Your task to perform on an android device: Turn off notifications for the Google Maps app Image 0: 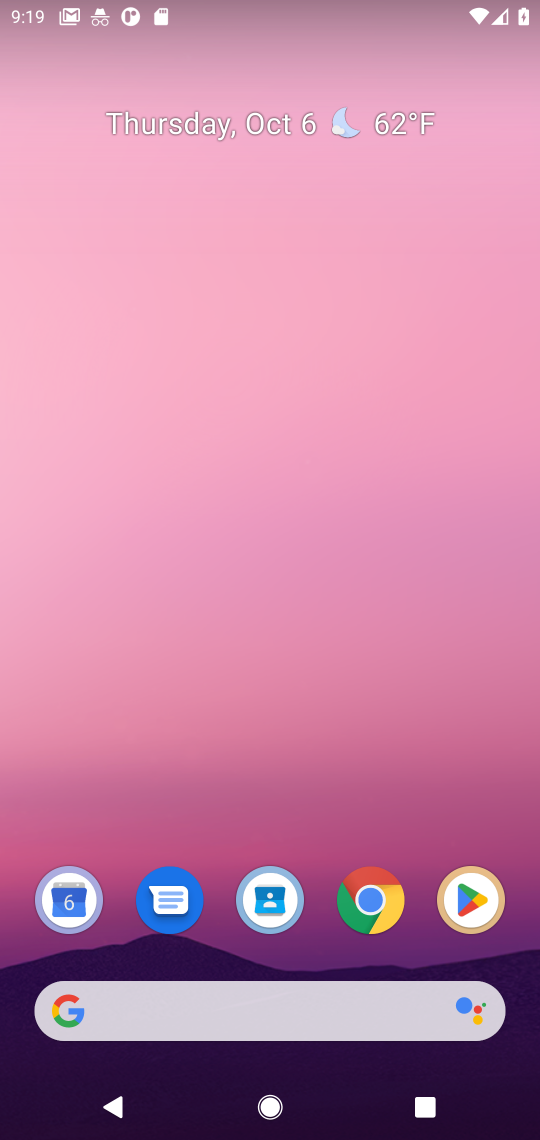
Step 0: press home button
Your task to perform on an android device: Turn off notifications for the Google Maps app Image 1: 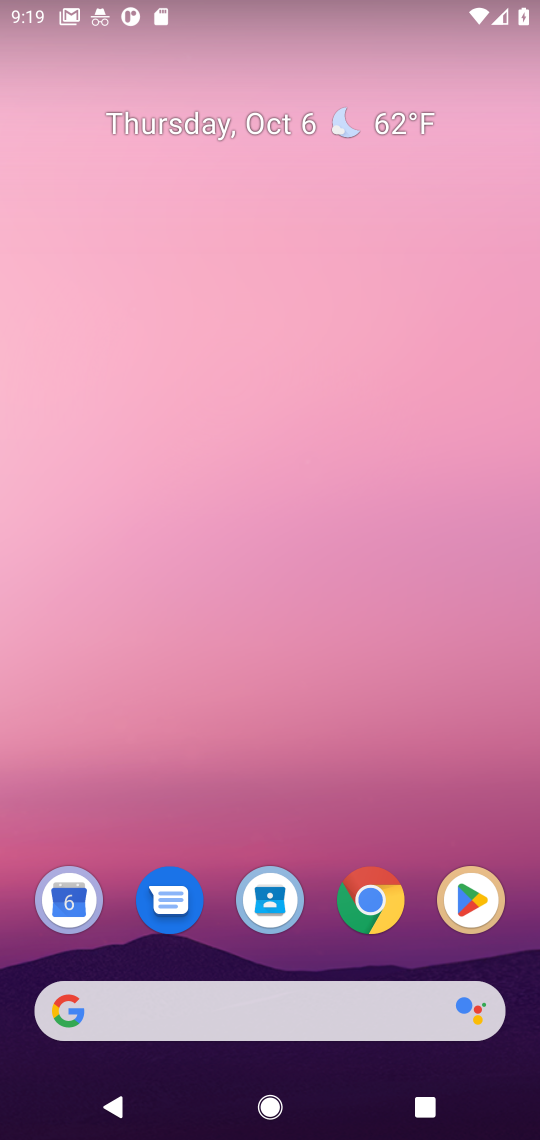
Step 1: drag from (480, 758) to (481, 40)
Your task to perform on an android device: Turn off notifications for the Google Maps app Image 2: 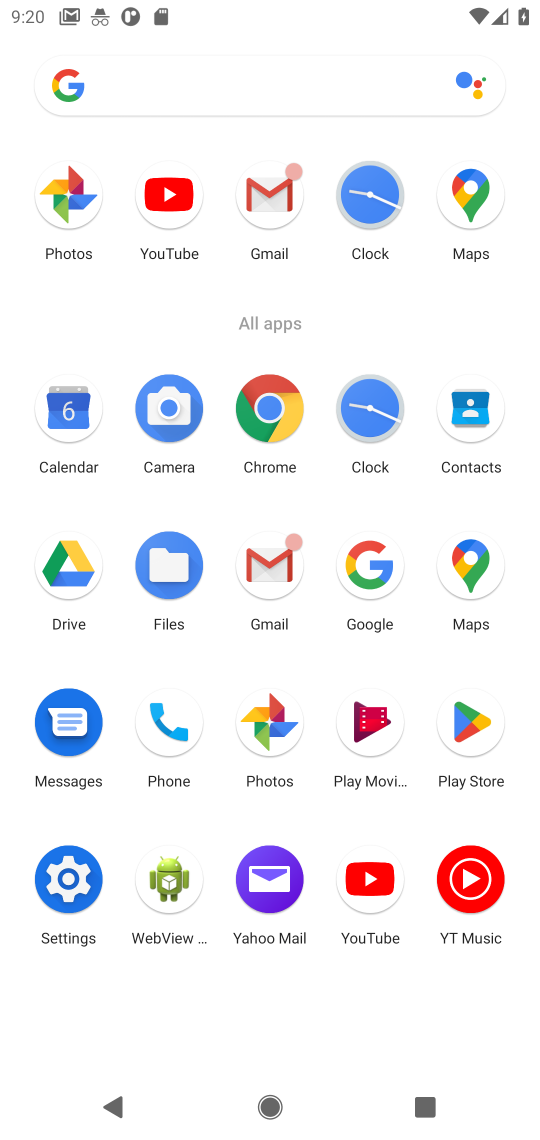
Step 2: click (483, 553)
Your task to perform on an android device: Turn off notifications for the Google Maps app Image 3: 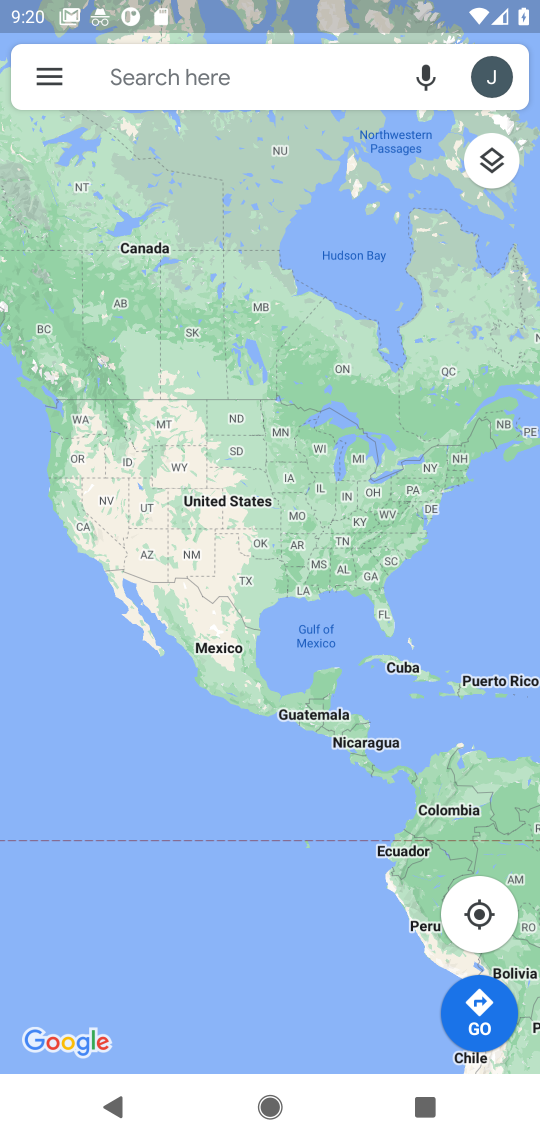
Step 3: click (46, 83)
Your task to perform on an android device: Turn off notifications for the Google Maps app Image 4: 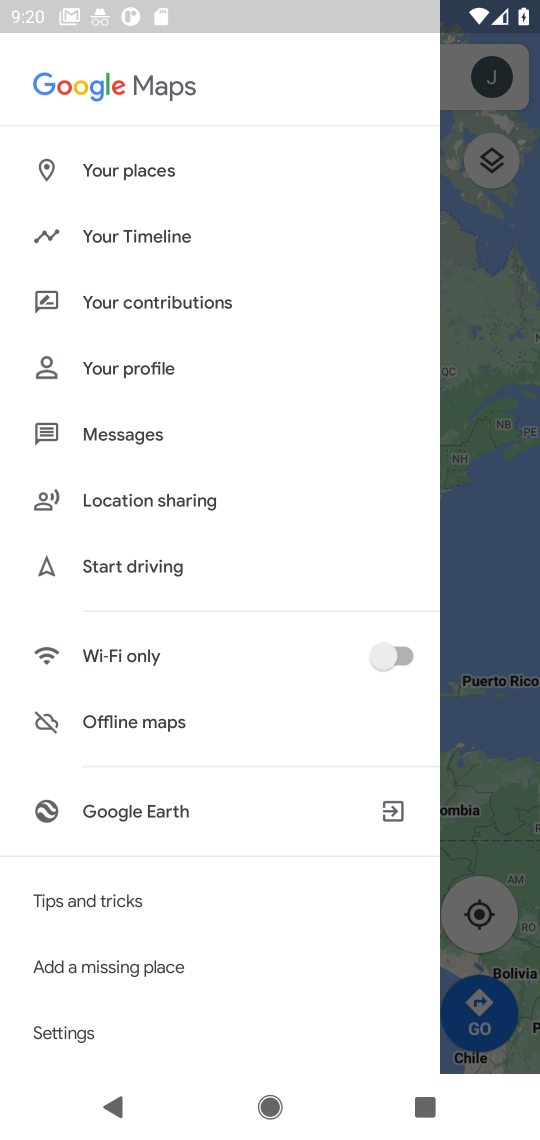
Step 4: drag from (301, 773) to (296, 441)
Your task to perform on an android device: Turn off notifications for the Google Maps app Image 5: 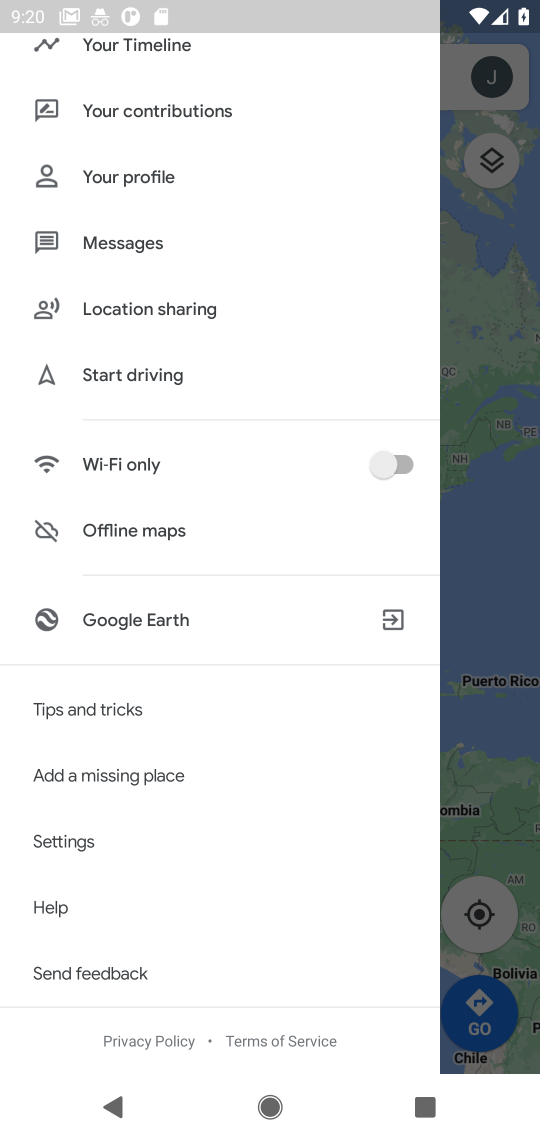
Step 5: click (83, 847)
Your task to perform on an android device: Turn off notifications for the Google Maps app Image 6: 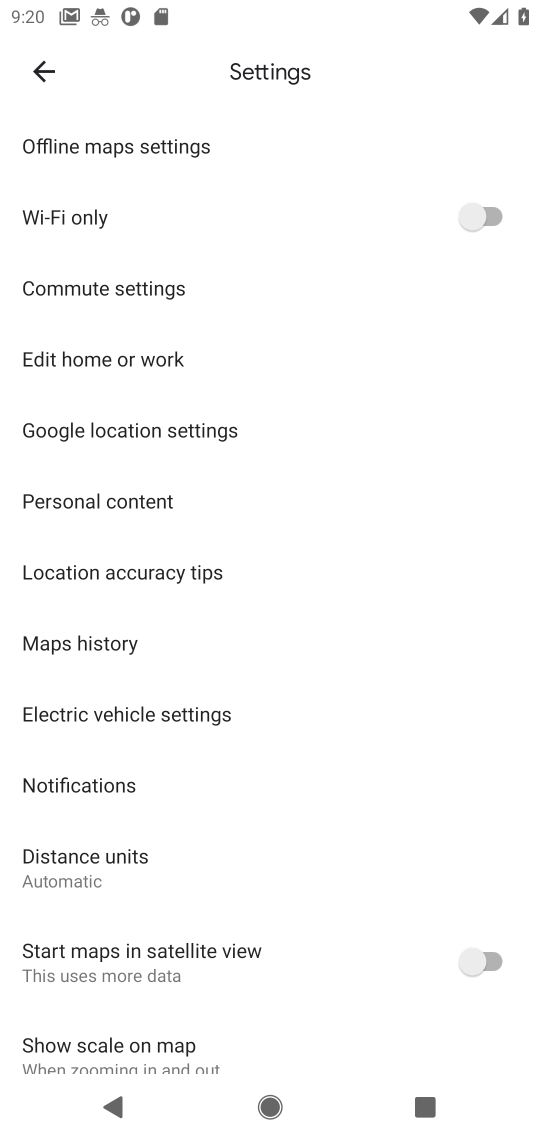
Step 6: click (59, 780)
Your task to perform on an android device: Turn off notifications for the Google Maps app Image 7: 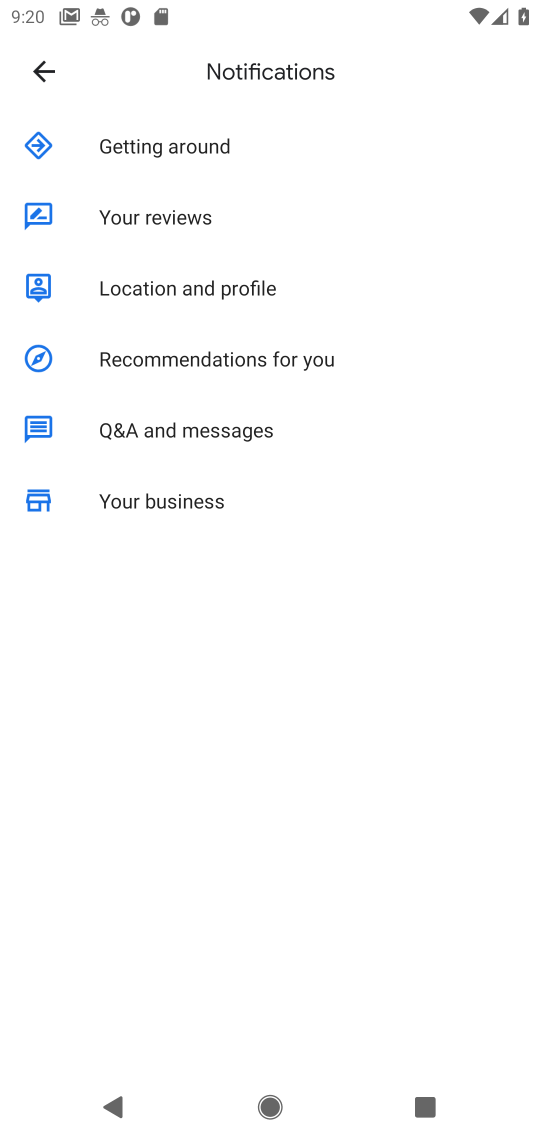
Step 7: click (200, 144)
Your task to perform on an android device: Turn off notifications for the Google Maps app Image 8: 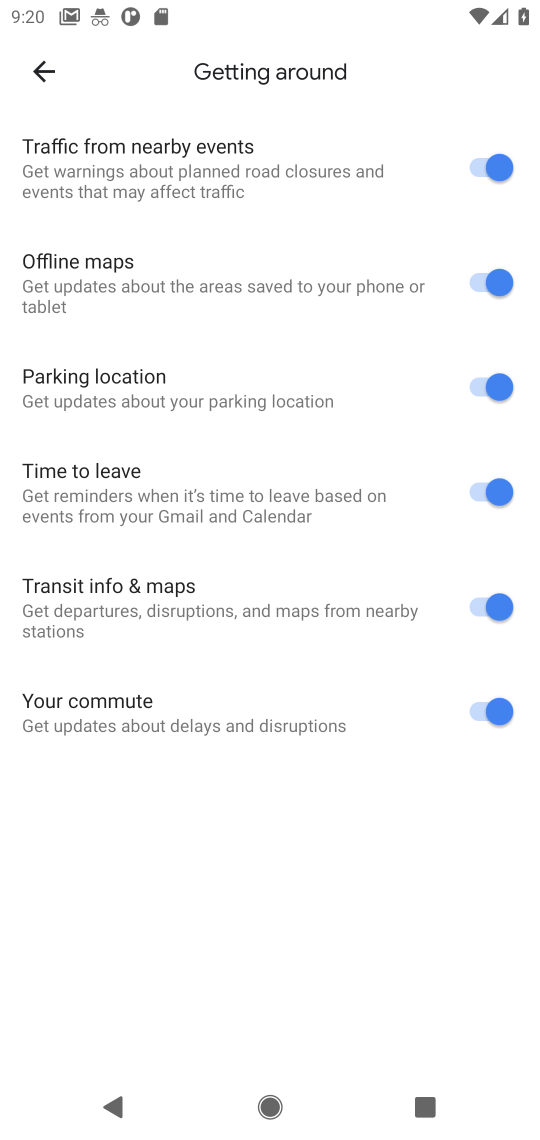
Step 8: click (501, 170)
Your task to perform on an android device: Turn off notifications for the Google Maps app Image 9: 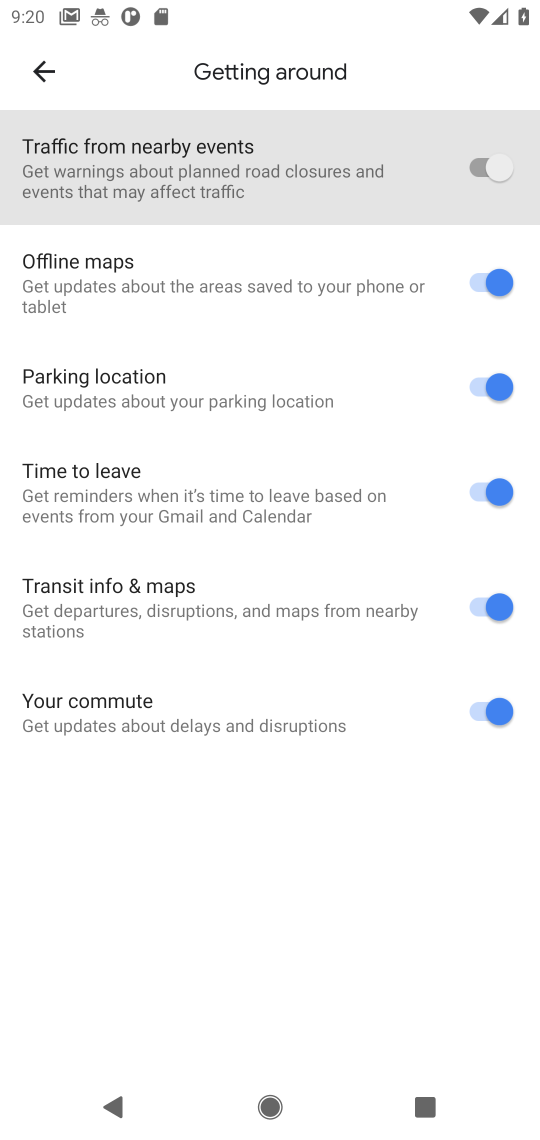
Step 9: click (496, 290)
Your task to perform on an android device: Turn off notifications for the Google Maps app Image 10: 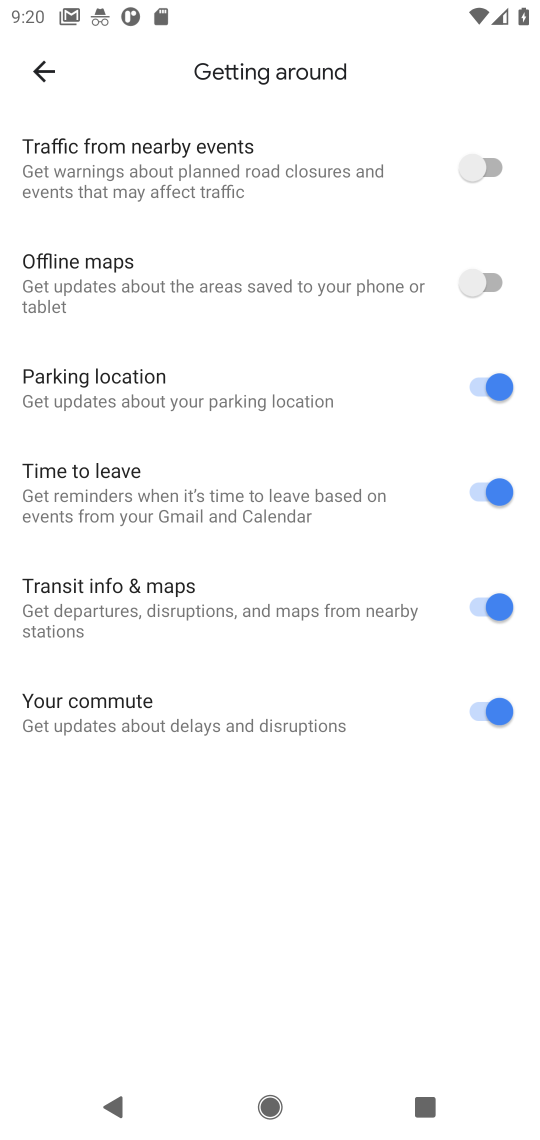
Step 10: click (501, 382)
Your task to perform on an android device: Turn off notifications for the Google Maps app Image 11: 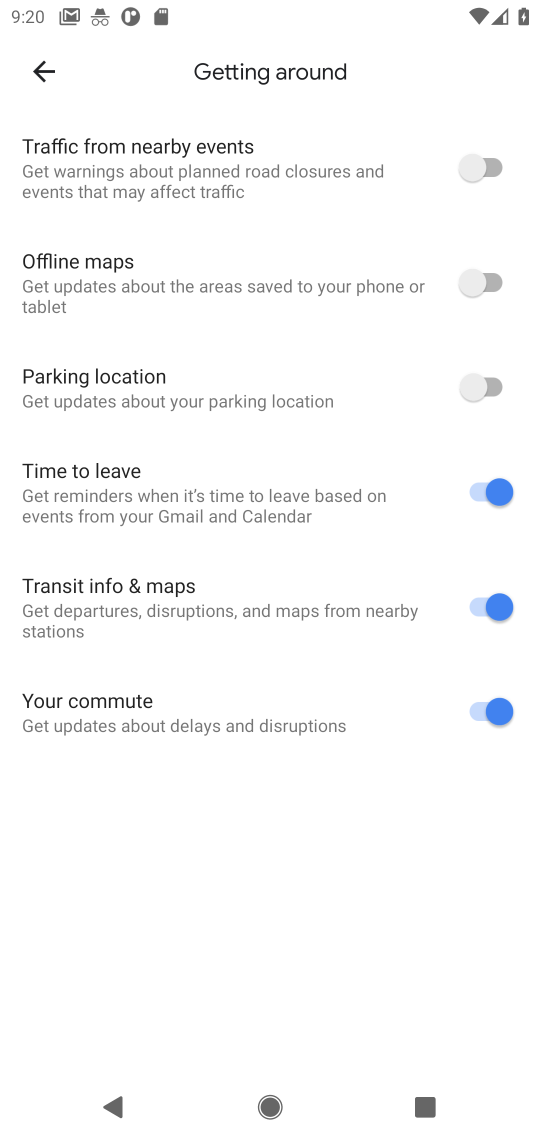
Step 11: click (495, 496)
Your task to perform on an android device: Turn off notifications for the Google Maps app Image 12: 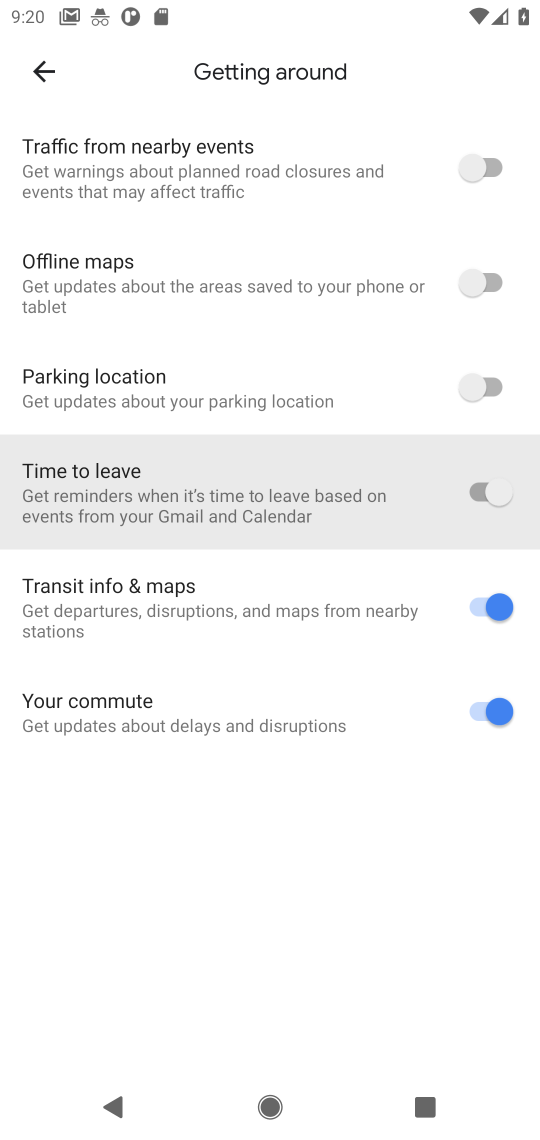
Step 12: click (495, 605)
Your task to perform on an android device: Turn off notifications for the Google Maps app Image 13: 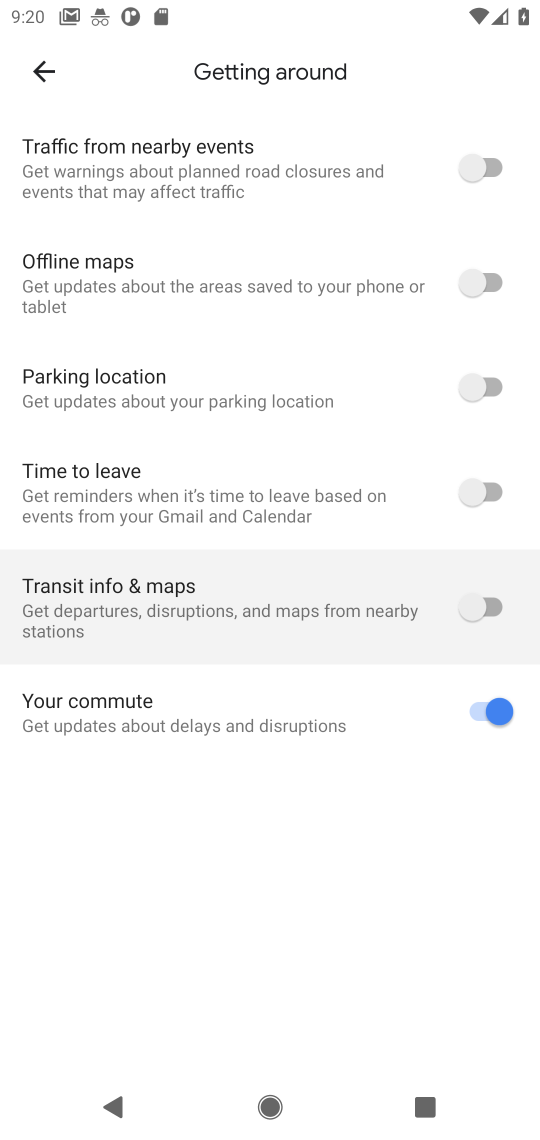
Step 13: click (488, 712)
Your task to perform on an android device: Turn off notifications for the Google Maps app Image 14: 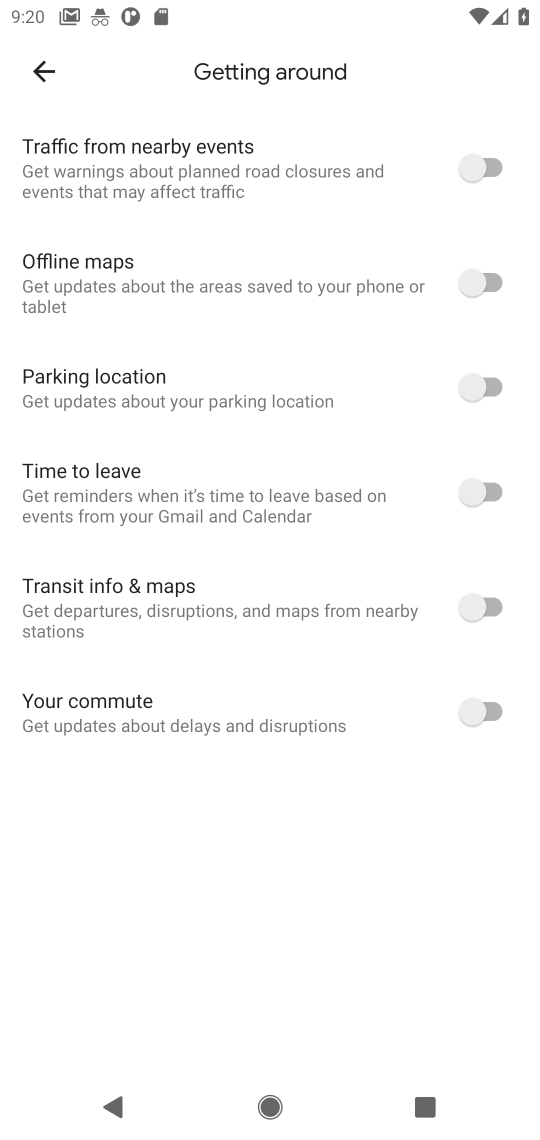
Step 14: click (492, 703)
Your task to perform on an android device: Turn off notifications for the Google Maps app Image 15: 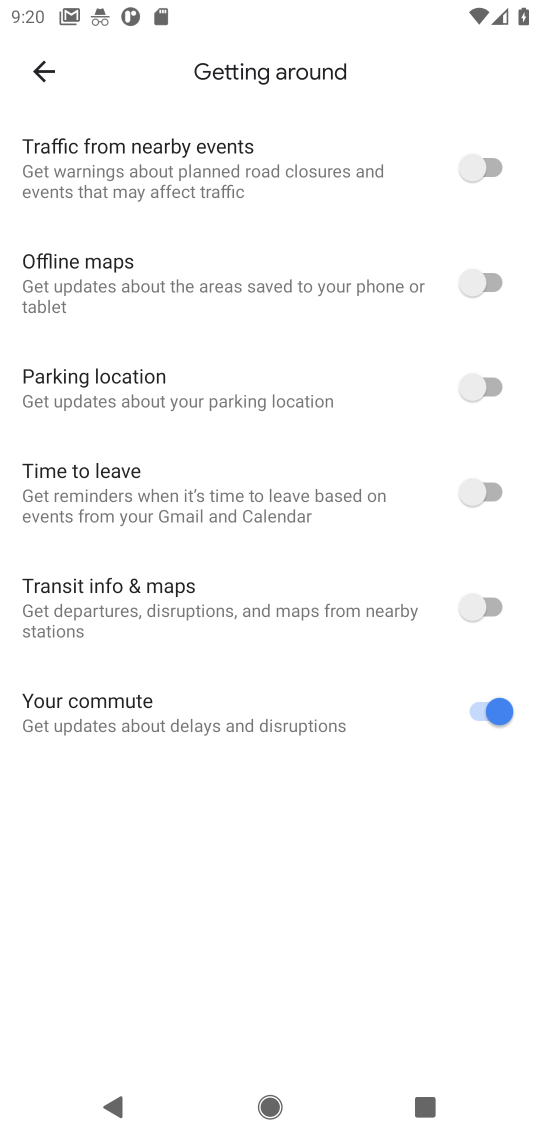
Step 15: click (42, 61)
Your task to perform on an android device: Turn off notifications for the Google Maps app Image 16: 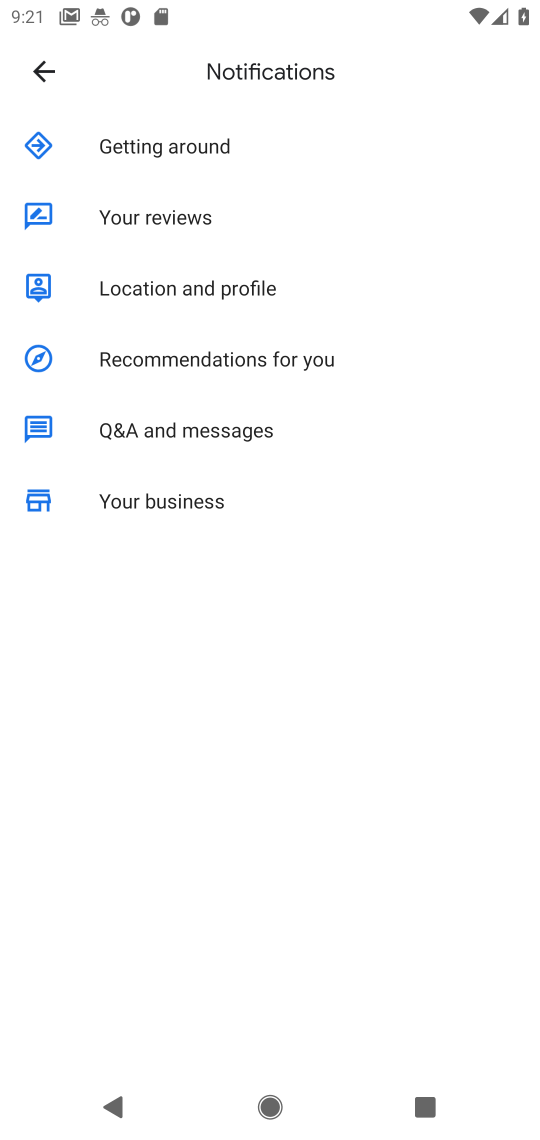
Step 16: click (46, 63)
Your task to perform on an android device: Turn off notifications for the Google Maps app Image 17: 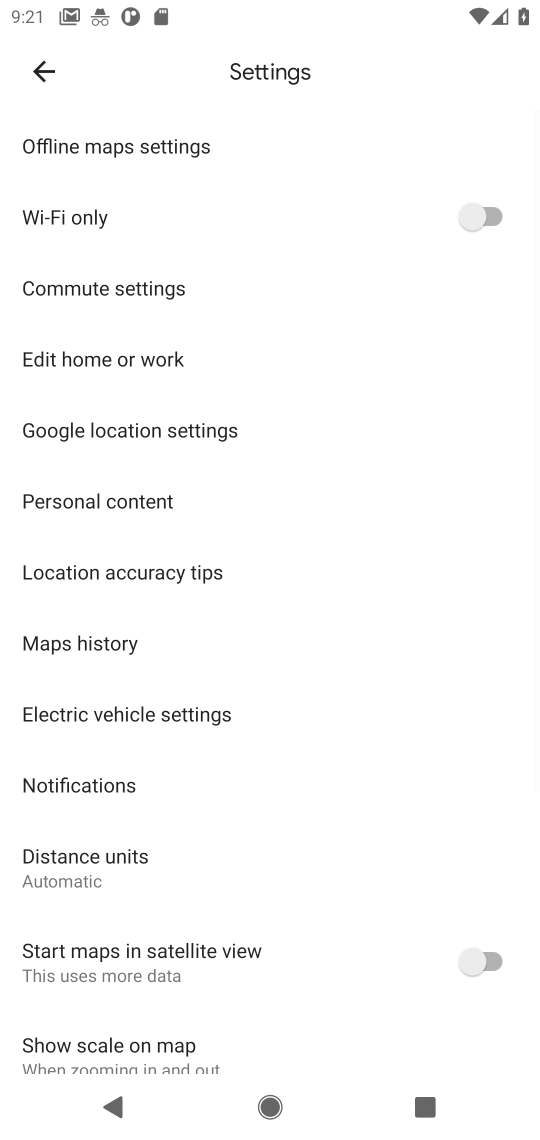
Step 17: task complete